Your task to perform on an android device: search for starred emails in the gmail app Image 0: 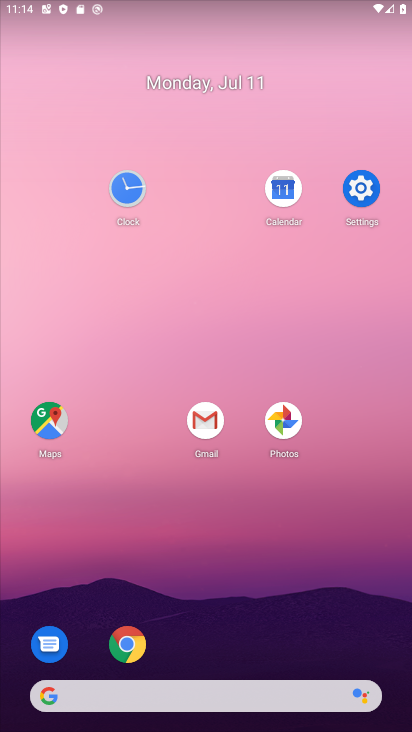
Step 0: click (211, 423)
Your task to perform on an android device: search for starred emails in the gmail app Image 1: 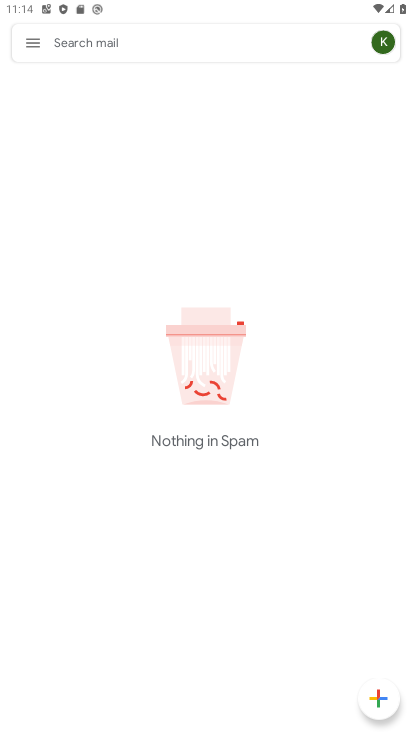
Step 1: click (21, 37)
Your task to perform on an android device: search for starred emails in the gmail app Image 2: 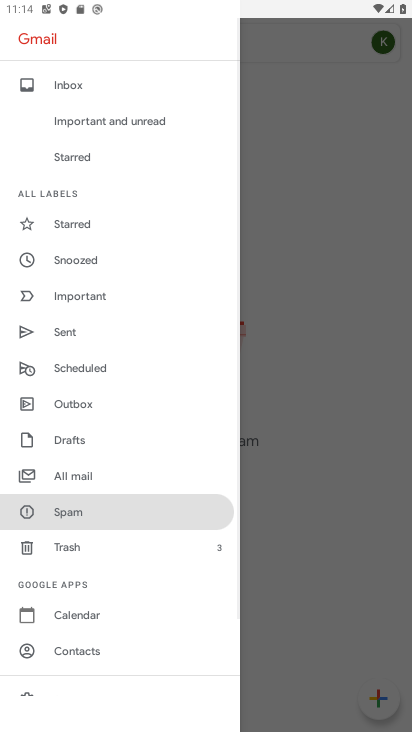
Step 2: click (85, 222)
Your task to perform on an android device: search for starred emails in the gmail app Image 3: 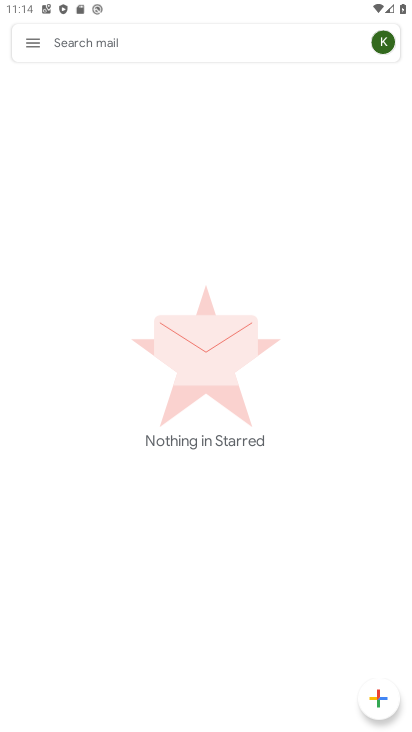
Step 3: task complete